Your task to perform on an android device: open chrome and create a bookmark for the current page Image 0: 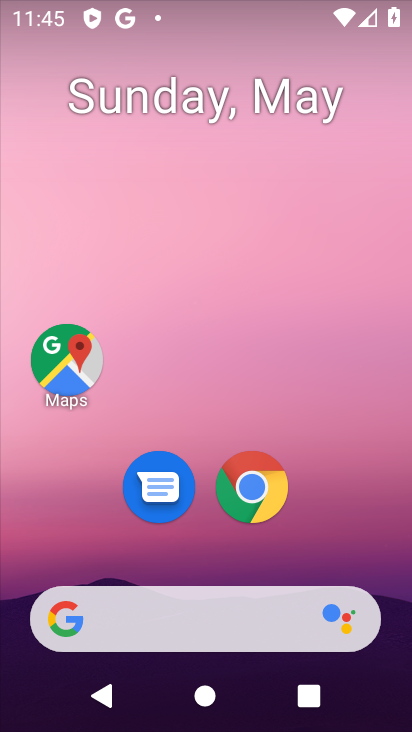
Step 0: click (262, 490)
Your task to perform on an android device: open chrome and create a bookmark for the current page Image 1: 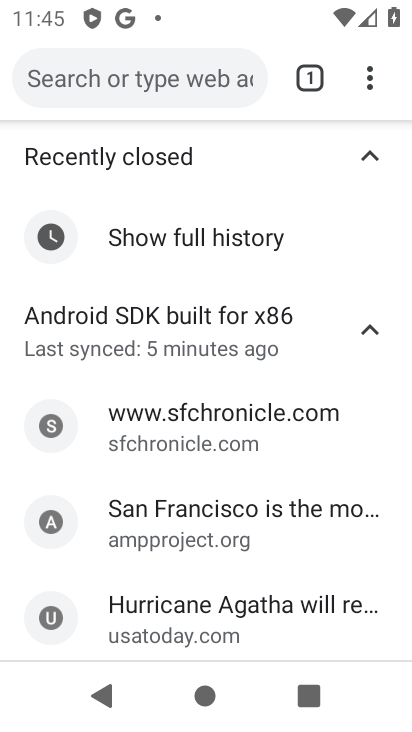
Step 1: click (375, 83)
Your task to perform on an android device: open chrome and create a bookmark for the current page Image 2: 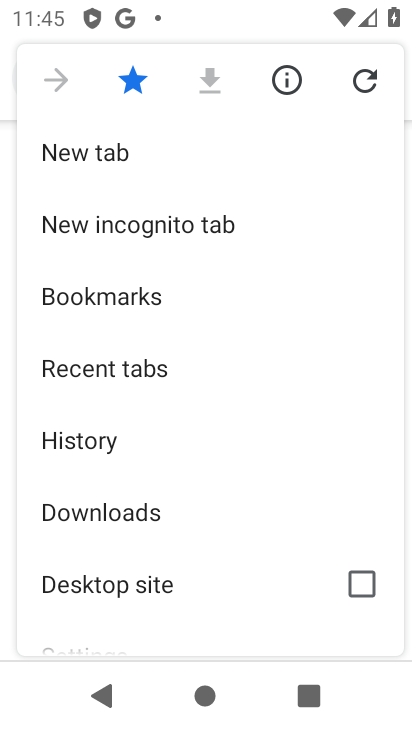
Step 2: task complete